Your task to perform on an android device: turn on the 12-hour format for clock Image 0: 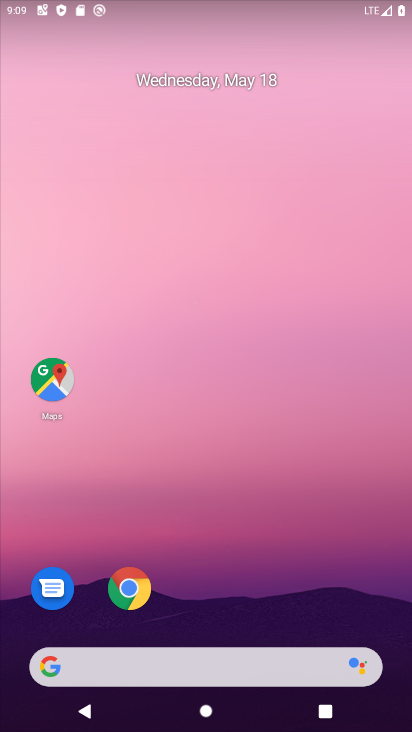
Step 0: drag from (289, 594) to (289, 5)
Your task to perform on an android device: turn on the 12-hour format for clock Image 1: 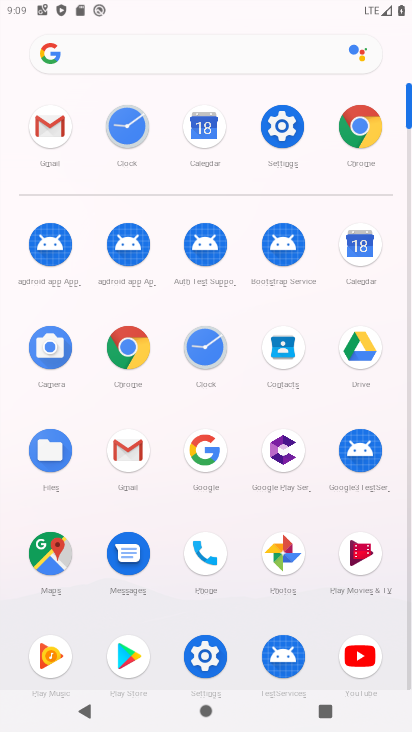
Step 1: click (119, 130)
Your task to perform on an android device: turn on the 12-hour format for clock Image 2: 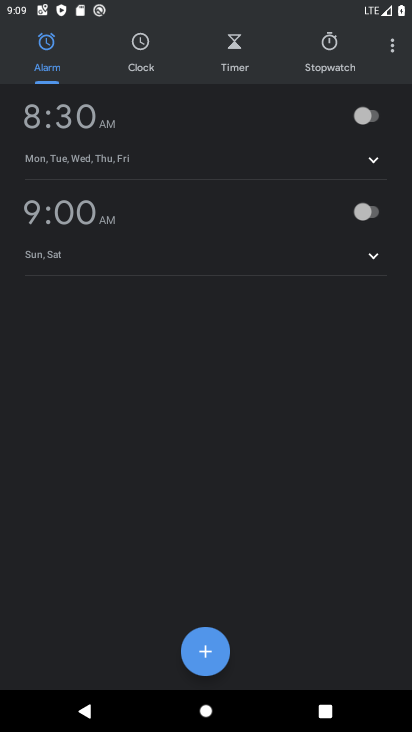
Step 2: click (390, 48)
Your task to perform on an android device: turn on the 12-hour format for clock Image 3: 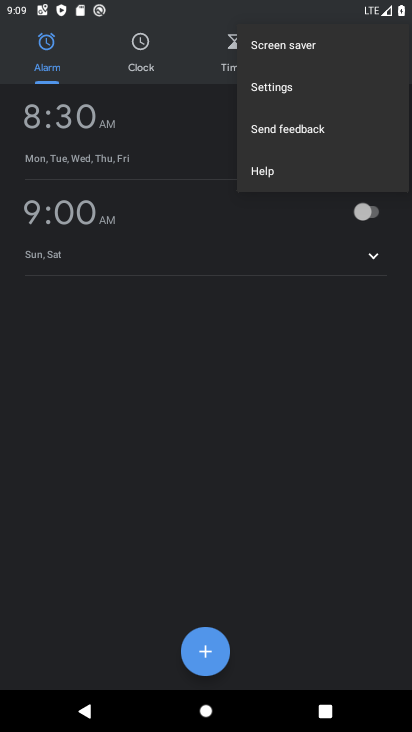
Step 3: click (261, 83)
Your task to perform on an android device: turn on the 12-hour format for clock Image 4: 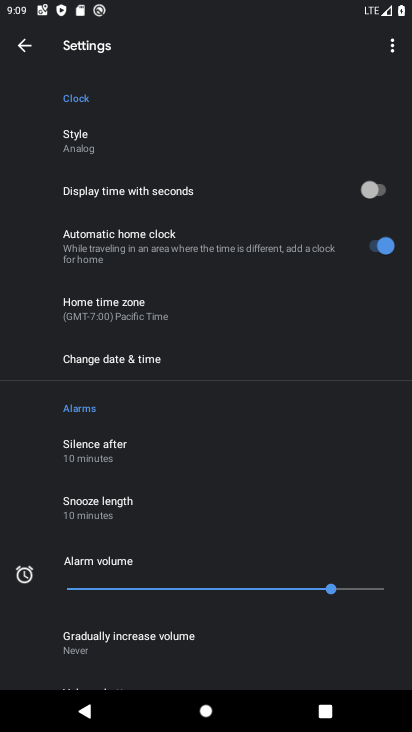
Step 4: click (102, 365)
Your task to perform on an android device: turn on the 12-hour format for clock Image 5: 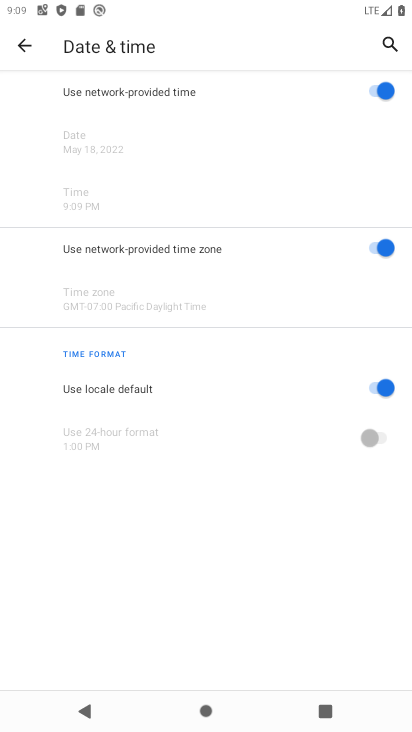
Step 5: task complete